Your task to perform on an android device: find which apps use the phone's location Image 0: 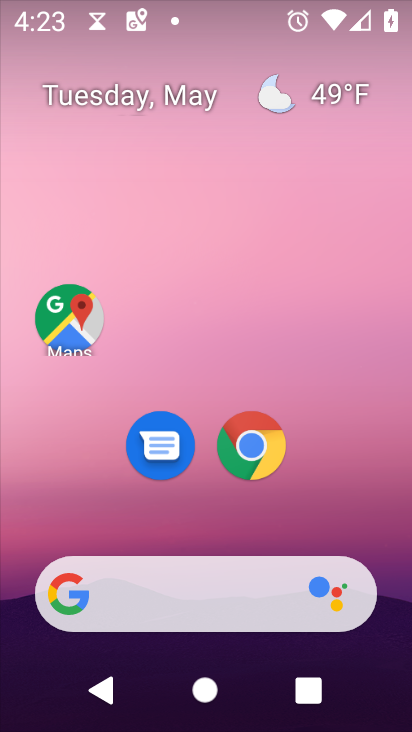
Step 0: drag from (277, 612) to (237, 57)
Your task to perform on an android device: find which apps use the phone's location Image 1: 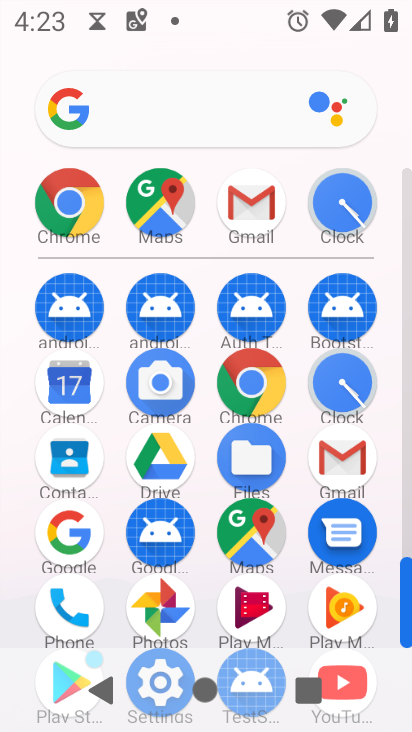
Step 1: drag from (210, 632) to (201, 308)
Your task to perform on an android device: find which apps use the phone's location Image 2: 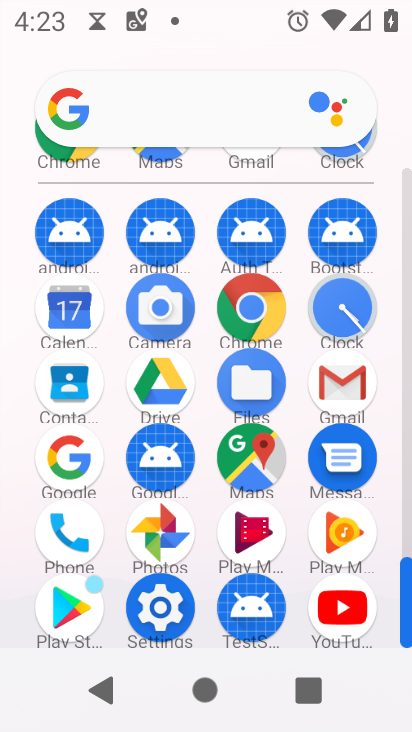
Step 2: click (161, 601)
Your task to perform on an android device: find which apps use the phone's location Image 3: 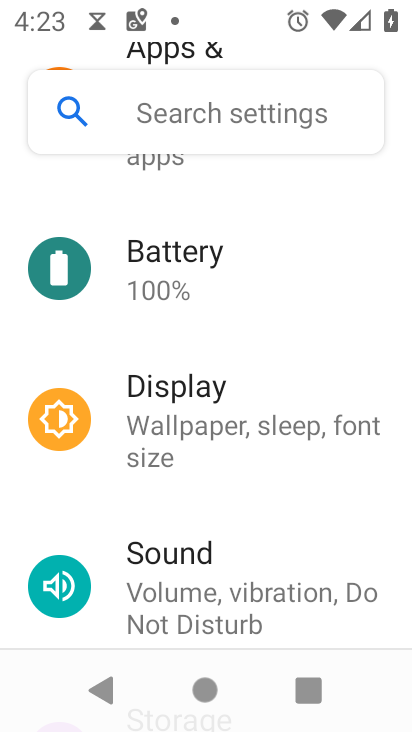
Step 3: drag from (265, 608) to (275, 115)
Your task to perform on an android device: find which apps use the phone's location Image 4: 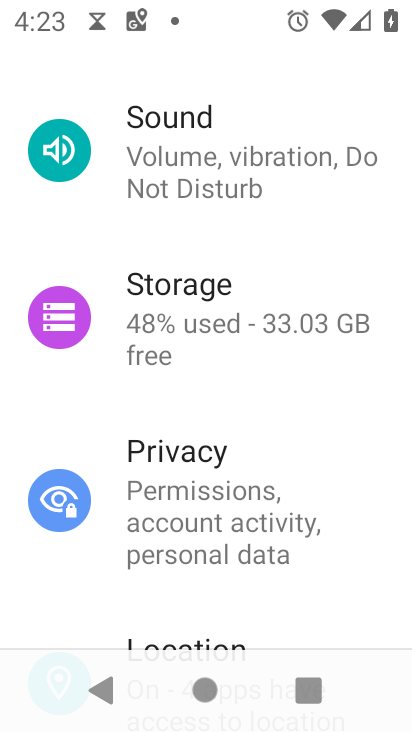
Step 4: drag from (252, 601) to (246, 246)
Your task to perform on an android device: find which apps use the phone's location Image 5: 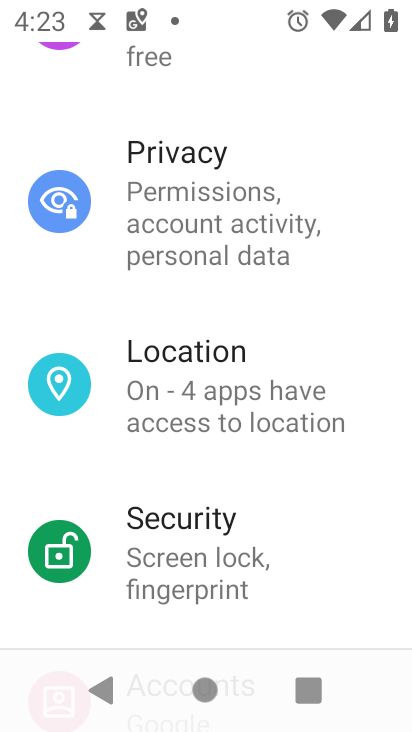
Step 5: click (255, 379)
Your task to perform on an android device: find which apps use the phone's location Image 6: 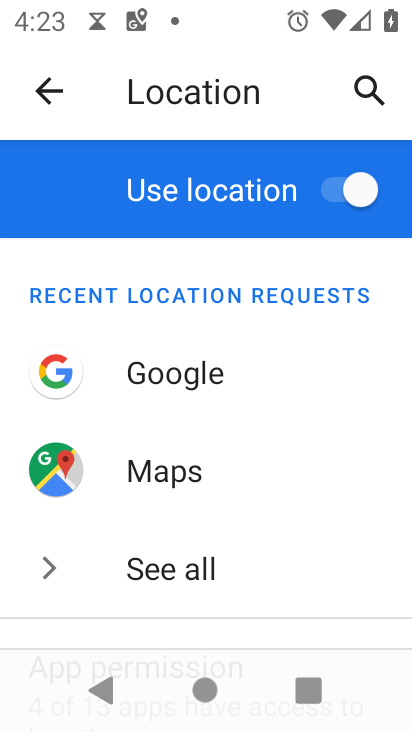
Step 6: drag from (289, 580) to (256, 153)
Your task to perform on an android device: find which apps use the phone's location Image 7: 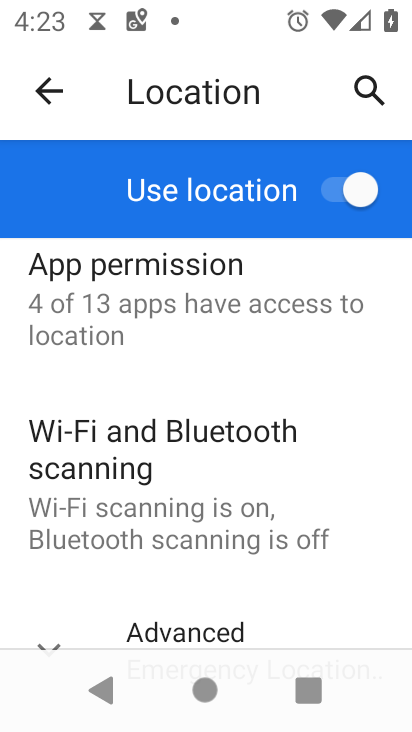
Step 7: click (215, 309)
Your task to perform on an android device: find which apps use the phone's location Image 8: 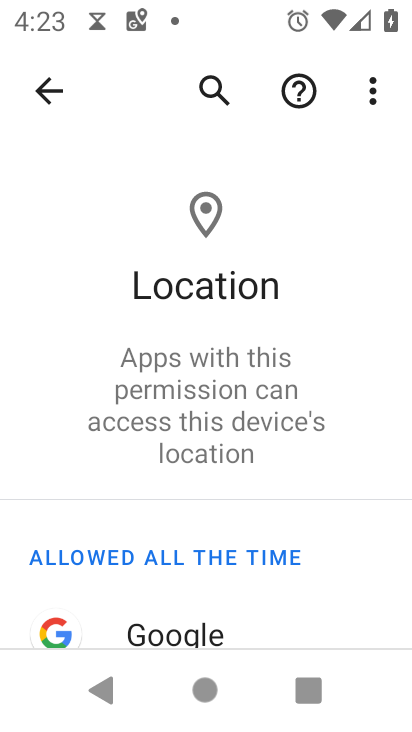
Step 8: task complete